Your task to perform on an android device: Search for Italian restaurants on Maps Image 0: 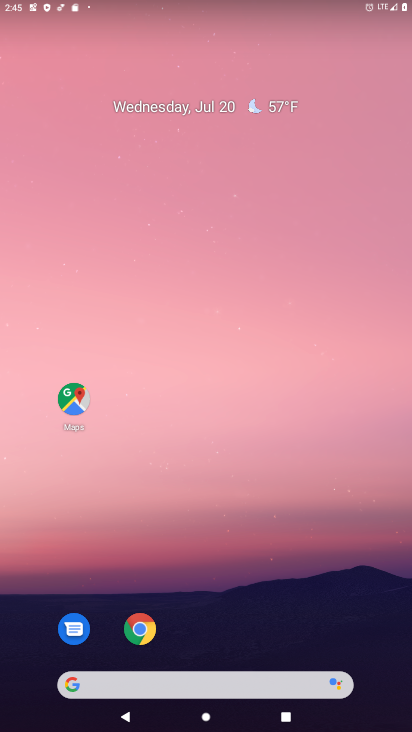
Step 0: click (75, 399)
Your task to perform on an android device: Search for Italian restaurants on Maps Image 1: 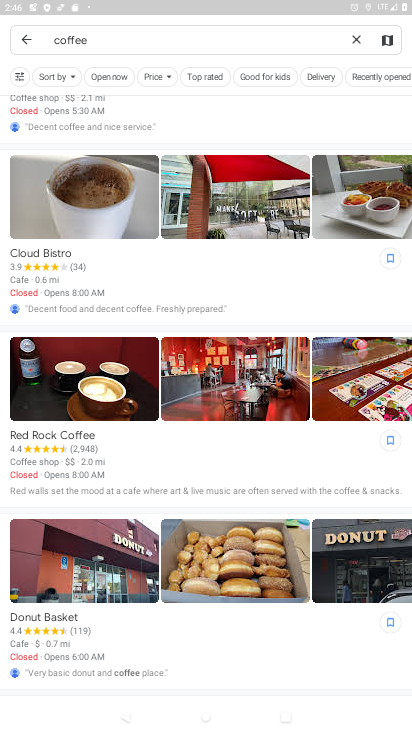
Step 1: click (352, 37)
Your task to perform on an android device: Search for Italian restaurants on Maps Image 2: 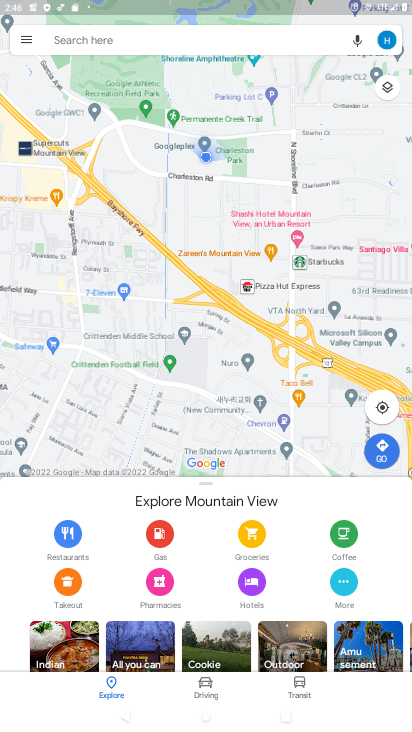
Step 2: click (138, 42)
Your task to perform on an android device: Search for Italian restaurants on Maps Image 3: 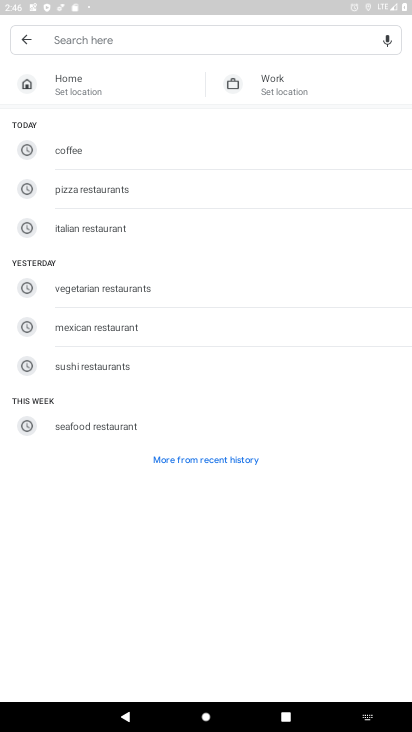
Step 3: type "italian restaurants"
Your task to perform on an android device: Search for Italian restaurants on Maps Image 4: 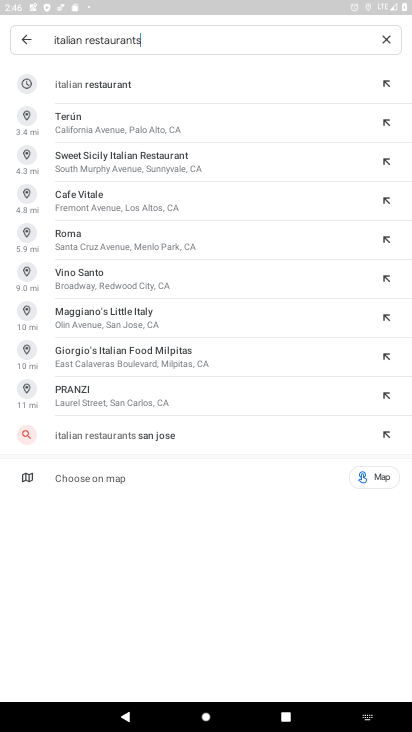
Step 4: click (93, 85)
Your task to perform on an android device: Search for Italian restaurants on Maps Image 5: 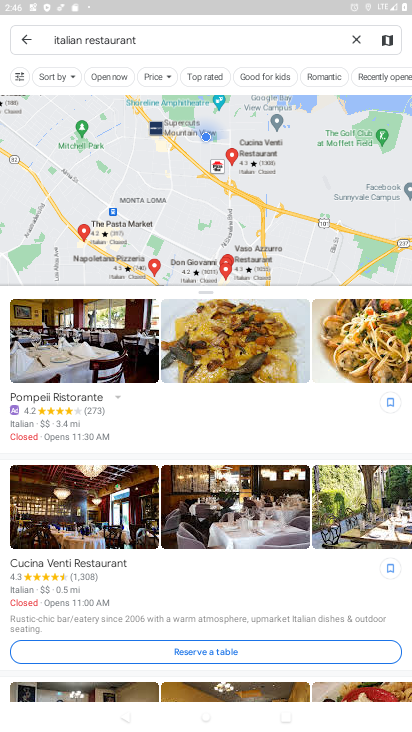
Step 5: task complete